Your task to perform on an android device: turn on airplane mode Image 0: 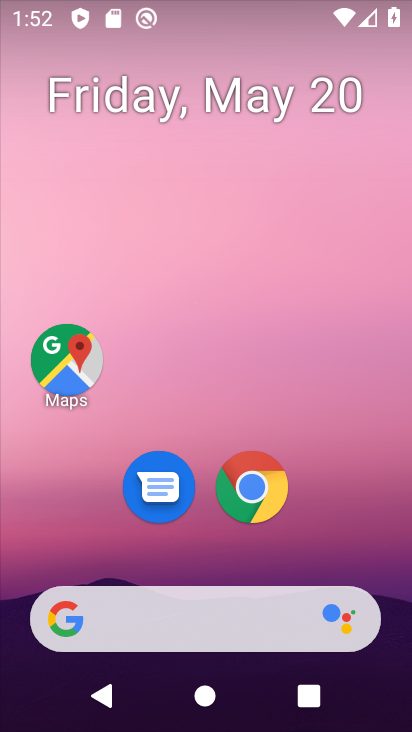
Step 0: drag from (388, 650) to (240, 28)
Your task to perform on an android device: turn on airplane mode Image 1: 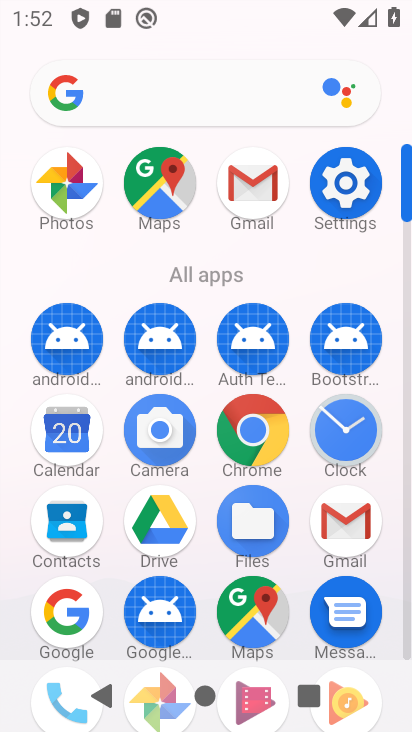
Step 1: click (344, 188)
Your task to perform on an android device: turn on airplane mode Image 2: 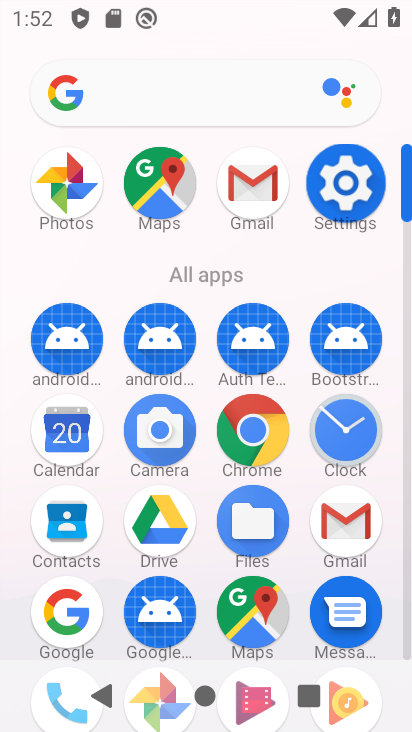
Step 2: click (342, 188)
Your task to perform on an android device: turn on airplane mode Image 3: 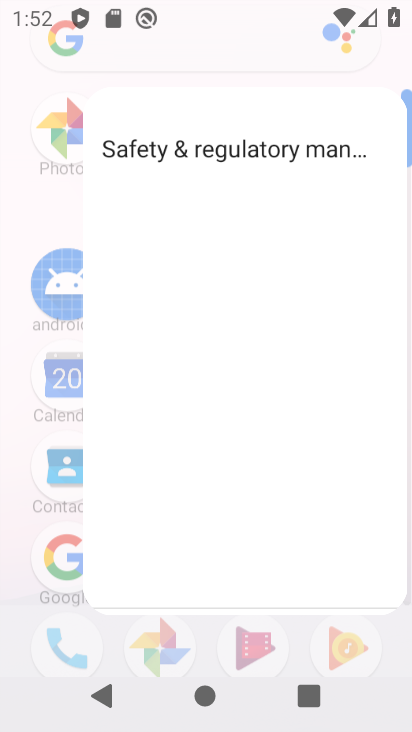
Step 3: click (342, 188)
Your task to perform on an android device: turn on airplane mode Image 4: 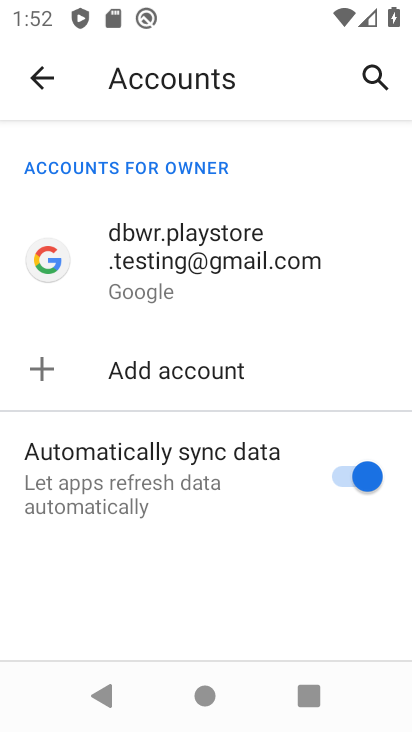
Step 4: click (44, 80)
Your task to perform on an android device: turn on airplane mode Image 5: 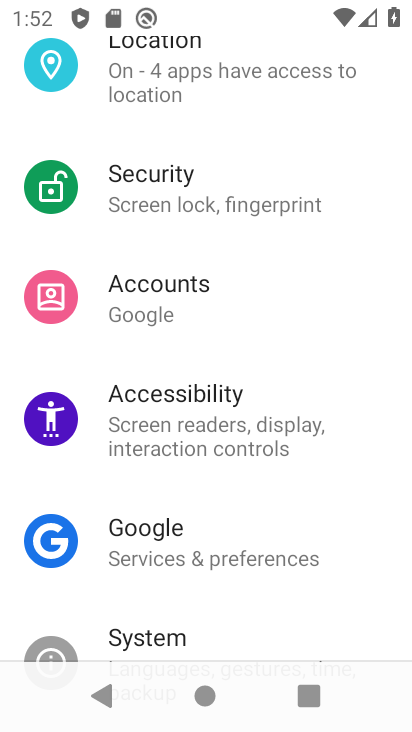
Step 5: drag from (174, 149) to (308, 691)
Your task to perform on an android device: turn on airplane mode Image 6: 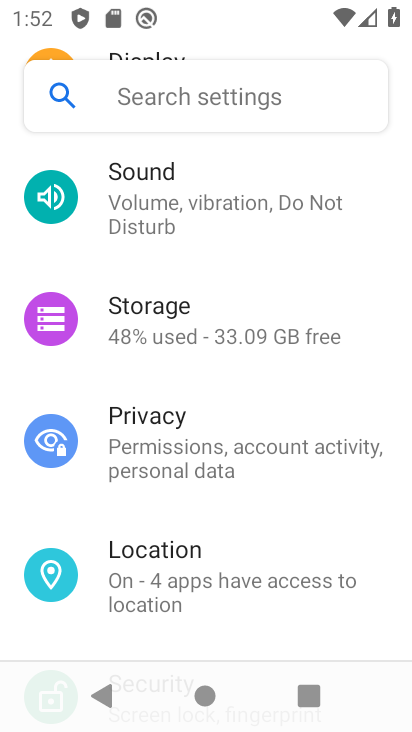
Step 6: drag from (144, 284) to (216, 703)
Your task to perform on an android device: turn on airplane mode Image 7: 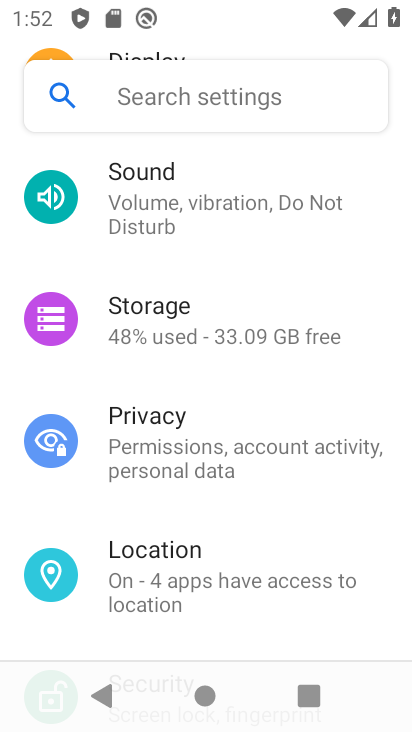
Step 7: drag from (194, 314) to (258, 634)
Your task to perform on an android device: turn on airplane mode Image 8: 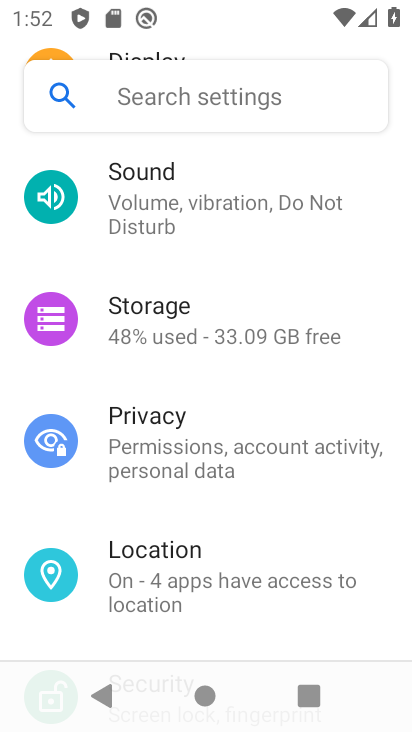
Step 8: drag from (219, 248) to (234, 576)
Your task to perform on an android device: turn on airplane mode Image 9: 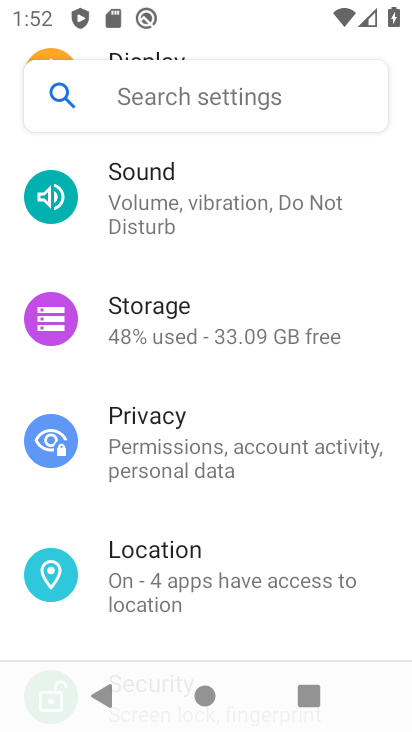
Step 9: drag from (189, 173) to (201, 547)
Your task to perform on an android device: turn on airplane mode Image 10: 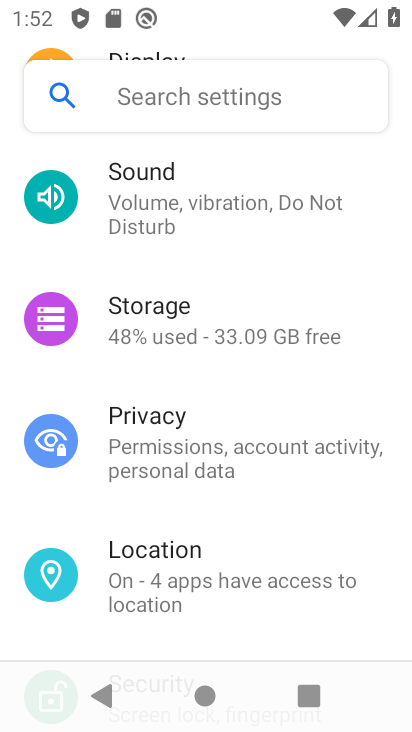
Step 10: drag from (200, 170) to (154, 495)
Your task to perform on an android device: turn on airplane mode Image 11: 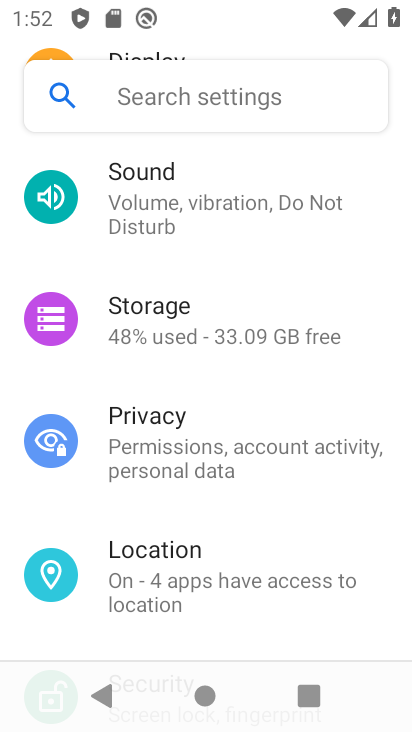
Step 11: drag from (251, 213) to (292, 731)
Your task to perform on an android device: turn on airplane mode Image 12: 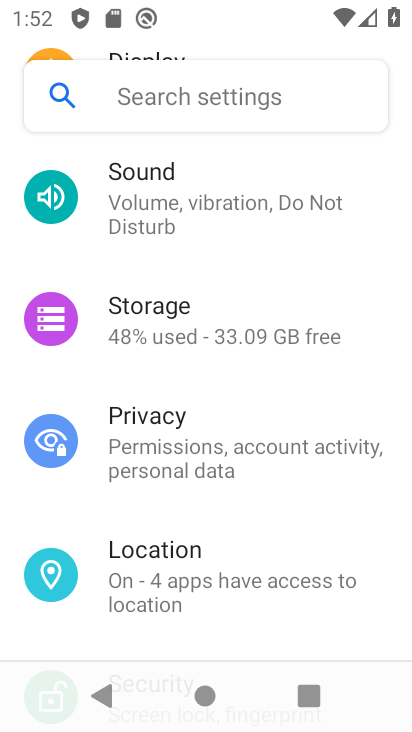
Step 12: drag from (196, 271) to (230, 578)
Your task to perform on an android device: turn on airplane mode Image 13: 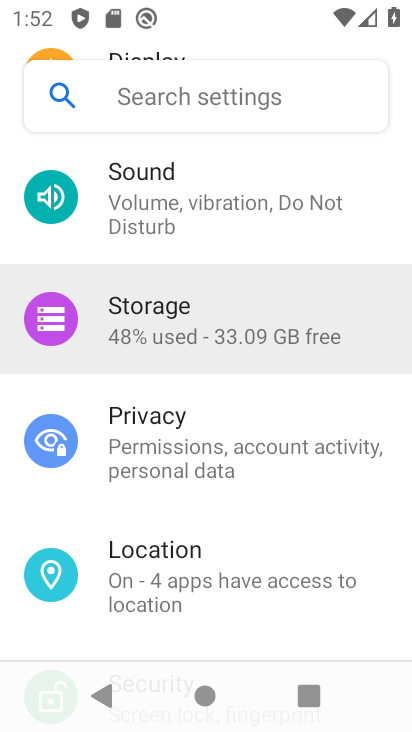
Step 13: drag from (217, 546) to (194, 725)
Your task to perform on an android device: turn on airplane mode Image 14: 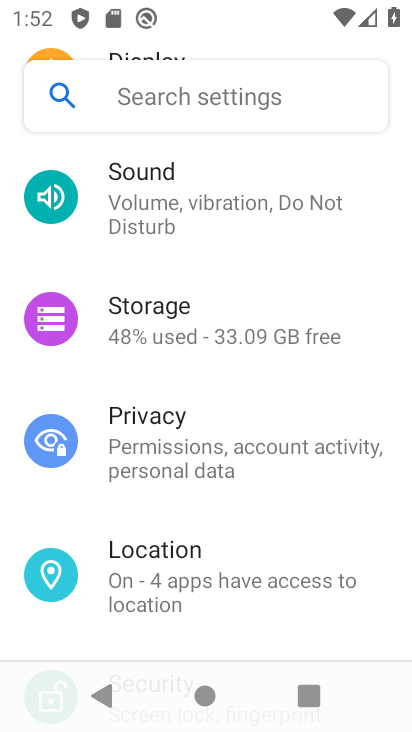
Step 14: drag from (150, 266) to (265, 695)
Your task to perform on an android device: turn on airplane mode Image 15: 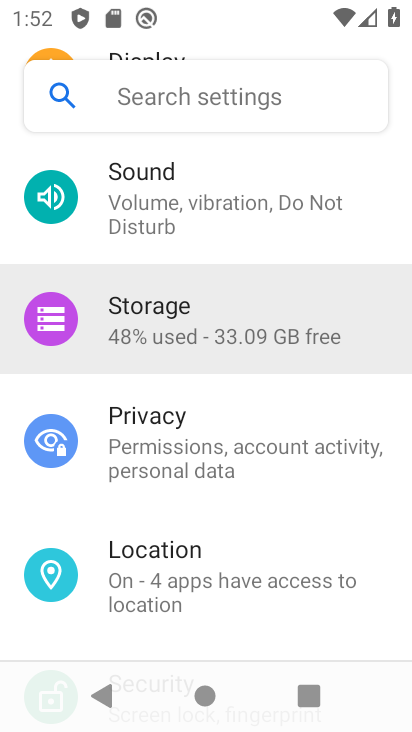
Step 15: drag from (175, 184) to (225, 658)
Your task to perform on an android device: turn on airplane mode Image 16: 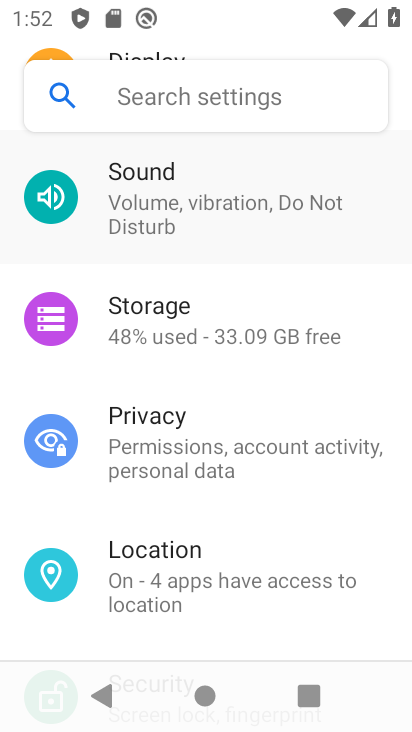
Step 16: drag from (276, 219) to (281, 701)
Your task to perform on an android device: turn on airplane mode Image 17: 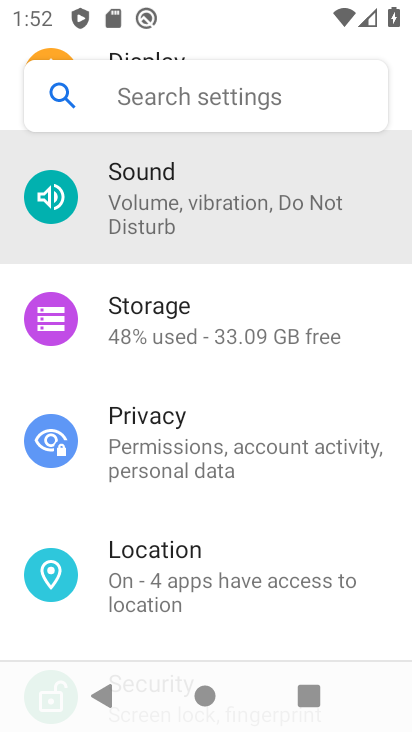
Step 17: drag from (183, 212) to (238, 673)
Your task to perform on an android device: turn on airplane mode Image 18: 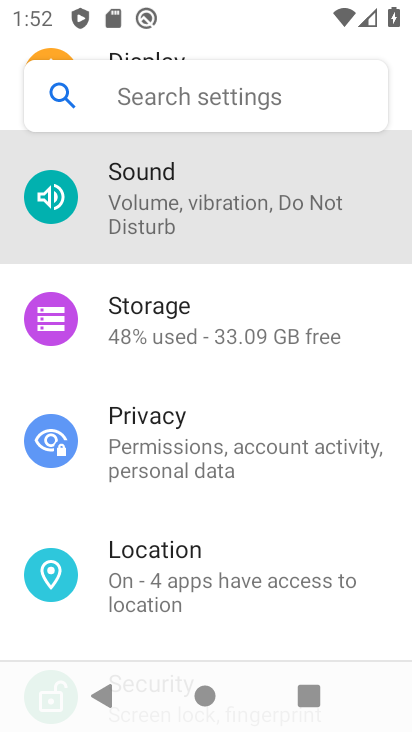
Step 18: drag from (97, 188) to (279, 572)
Your task to perform on an android device: turn on airplane mode Image 19: 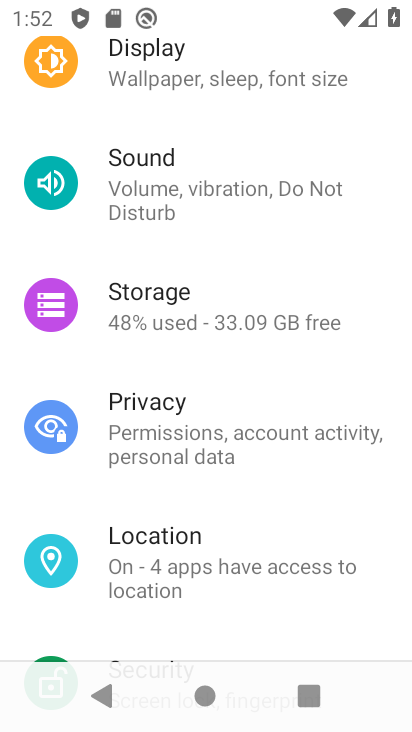
Step 19: drag from (279, 250) to (347, 696)
Your task to perform on an android device: turn on airplane mode Image 20: 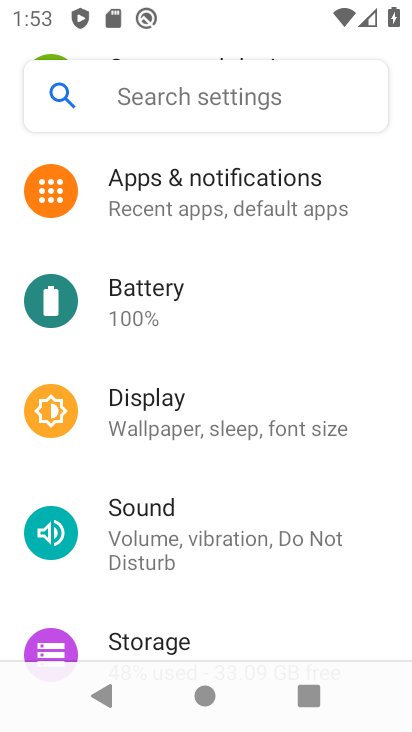
Step 20: drag from (220, 223) to (175, 647)
Your task to perform on an android device: turn on airplane mode Image 21: 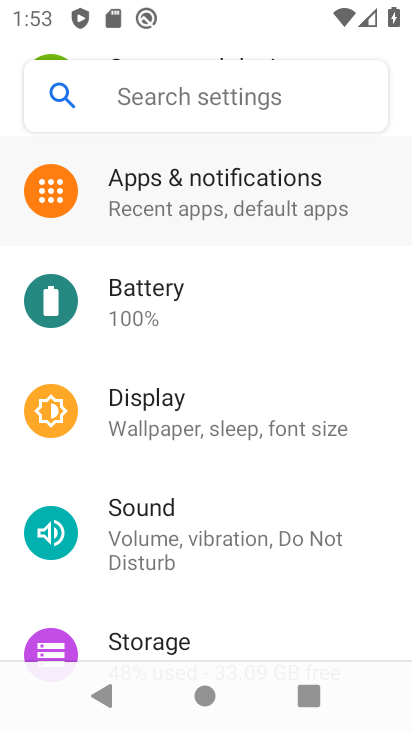
Step 21: drag from (165, 254) to (197, 636)
Your task to perform on an android device: turn on airplane mode Image 22: 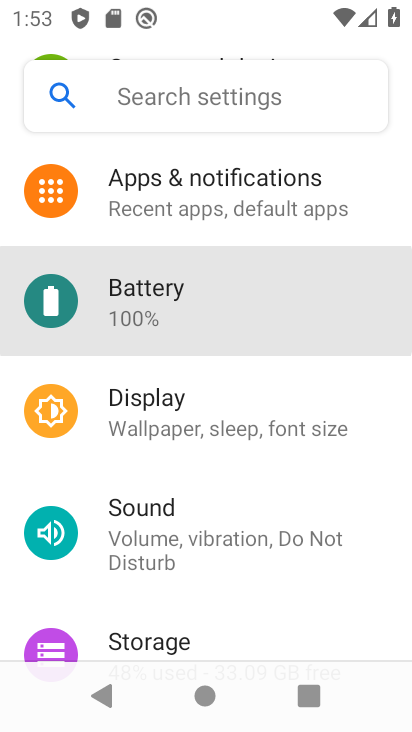
Step 22: drag from (179, 275) to (146, 705)
Your task to perform on an android device: turn on airplane mode Image 23: 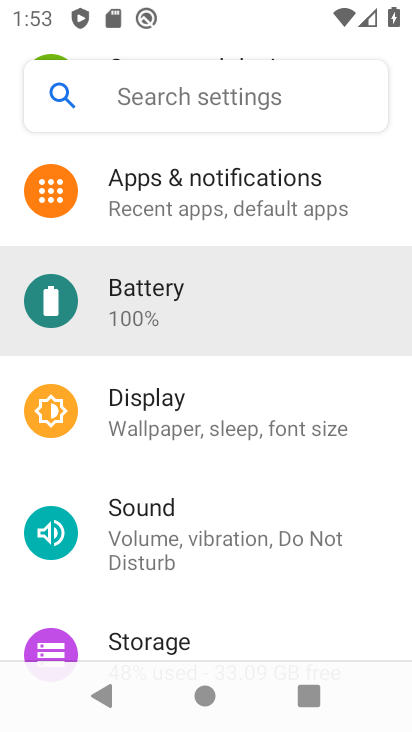
Step 23: drag from (155, 193) to (172, 650)
Your task to perform on an android device: turn on airplane mode Image 24: 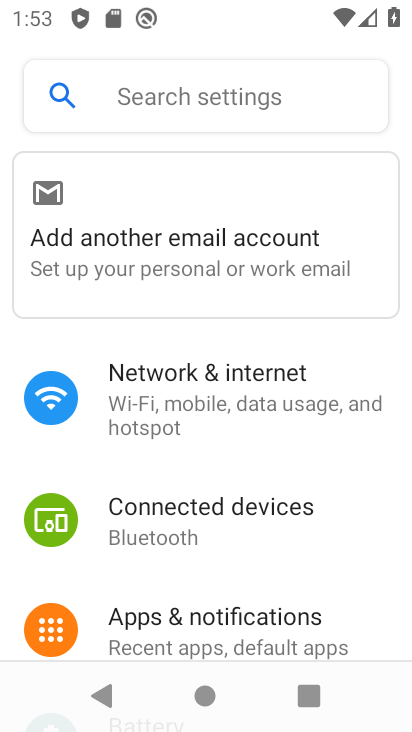
Step 24: drag from (195, 212) to (161, 681)
Your task to perform on an android device: turn on airplane mode Image 25: 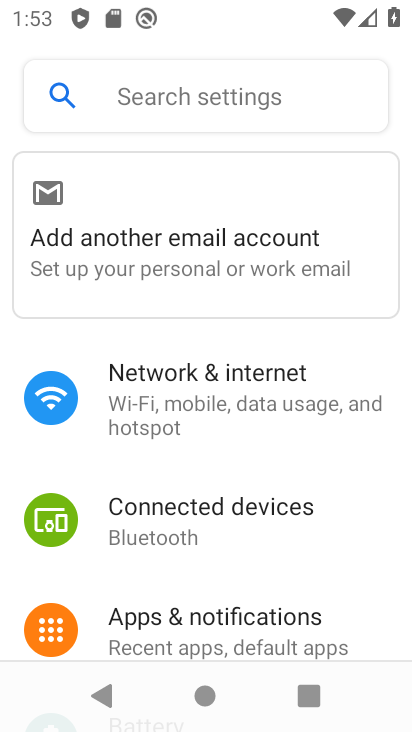
Step 25: click (264, 390)
Your task to perform on an android device: turn on airplane mode Image 26: 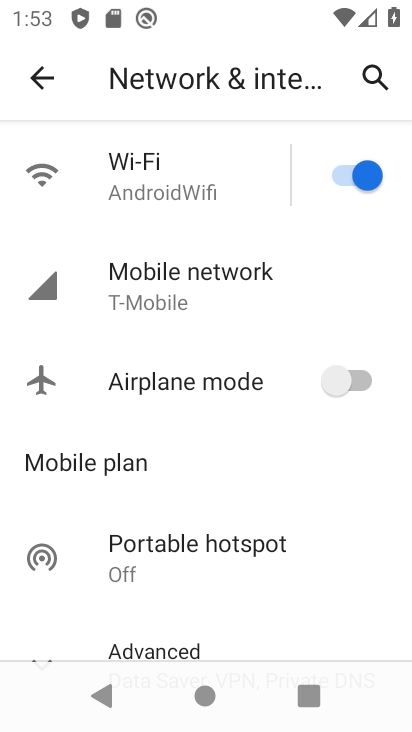
Step 26: click (336, 385)
Your task to perform on an android device: turn on airplane mode Image 27: 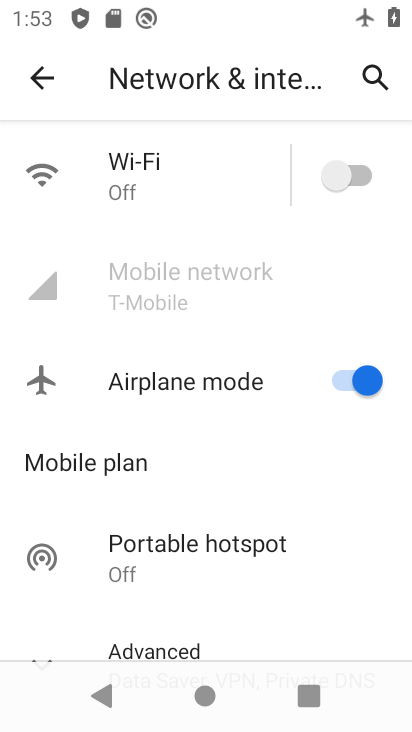
Step 27: task complete